Your task to perform on an android device: Clear all items from cart on target.com. Search for "bose quietcomfort 35" on target.com, select the first entry, add it to the cart, then select checkout. Image 0: 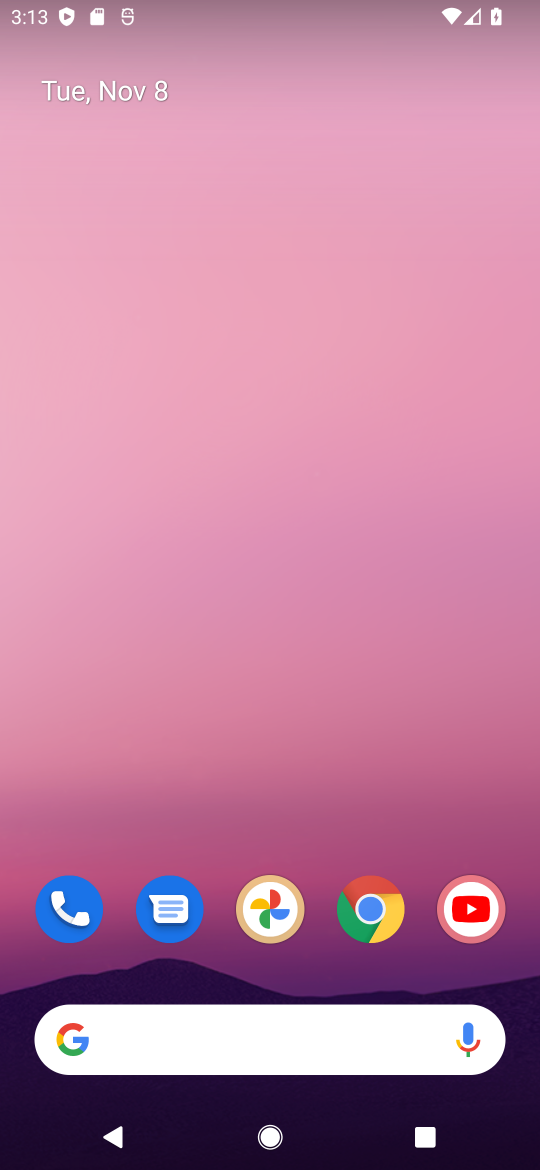
Step 0: click (381, 907)
Your task to perform on an android device: Clear all items from cart on target.com. Search for "bose quietcomfort 35" on target.com, select the first entry, add it to the cart, then select checkout. Image 1: 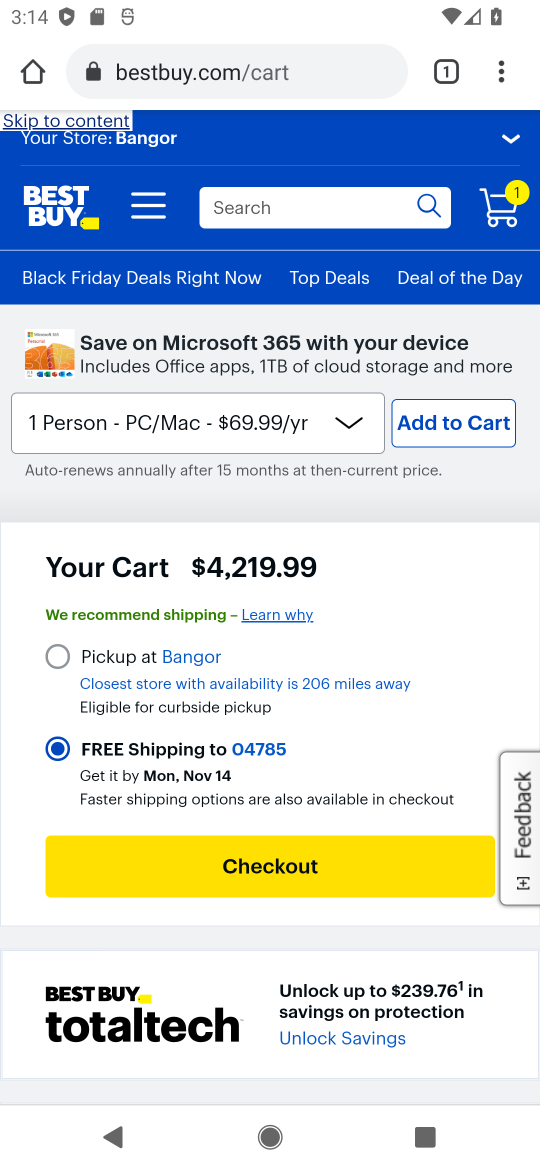
Step 1: click (326, 69)
Your task to perform on an android device: Clear all items from cart on target.com. Search for "bose quietcomfort 35" on target.com, select the first entry, add it to the cart, then select checkout. Image 2: 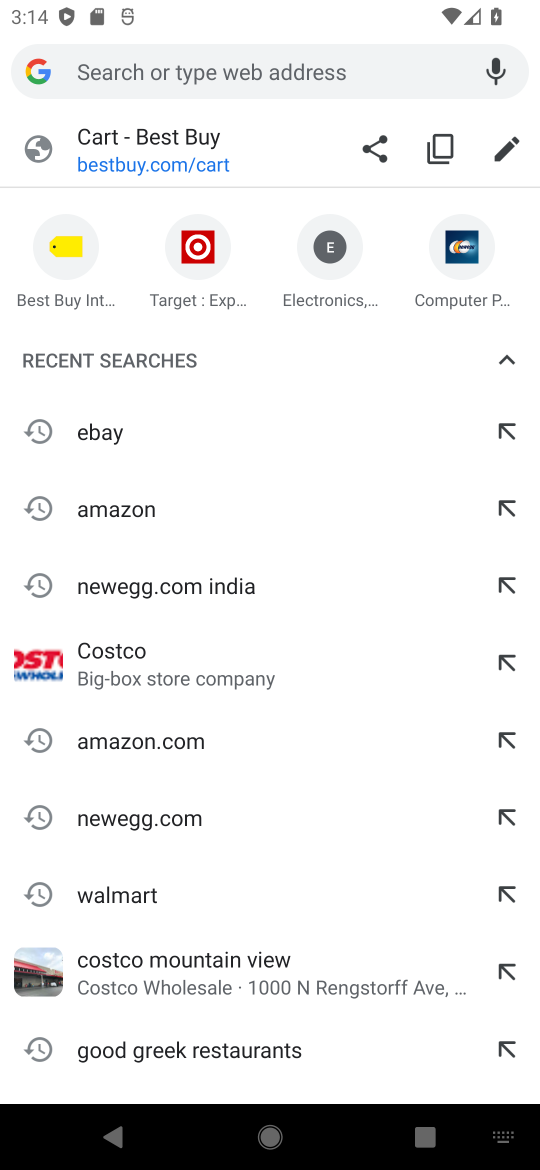
Step 2: click (189, 239)
Your task to perform on an android device: Clear all items from cart on target.com. Search for "bose quietcomfort 35" on target.com, select the first entry, add it to the cart, then select checkout. Image 3: 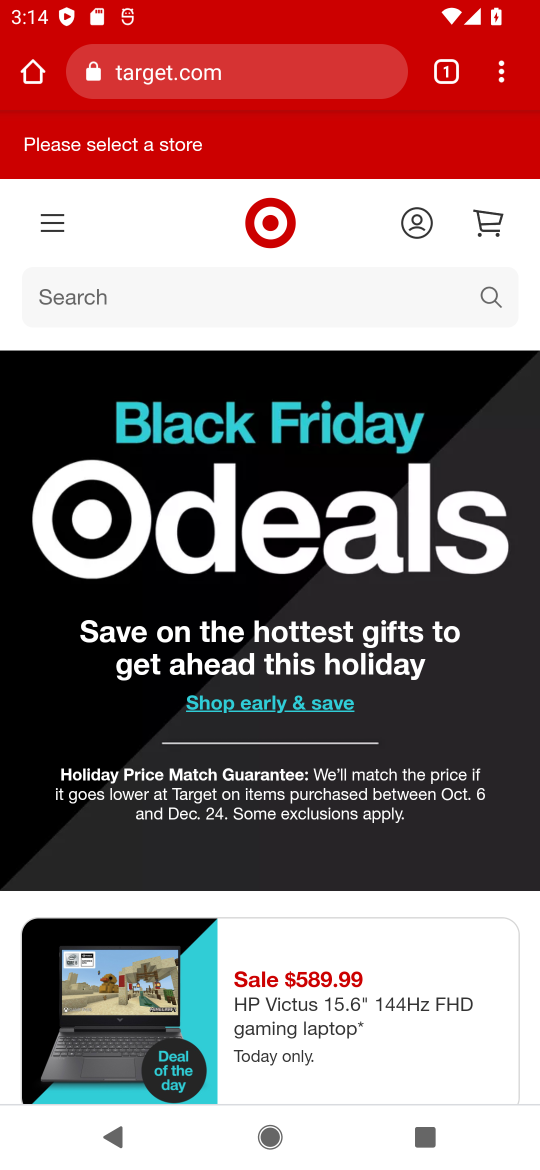
Step 3: click (248, 294)
Your task to perform on an android device: Clear all items from cart on target.com. Search for "bose quietcomfort 35" on target.com, select the first entry, add it to the cart, then select checkout. Image 4: 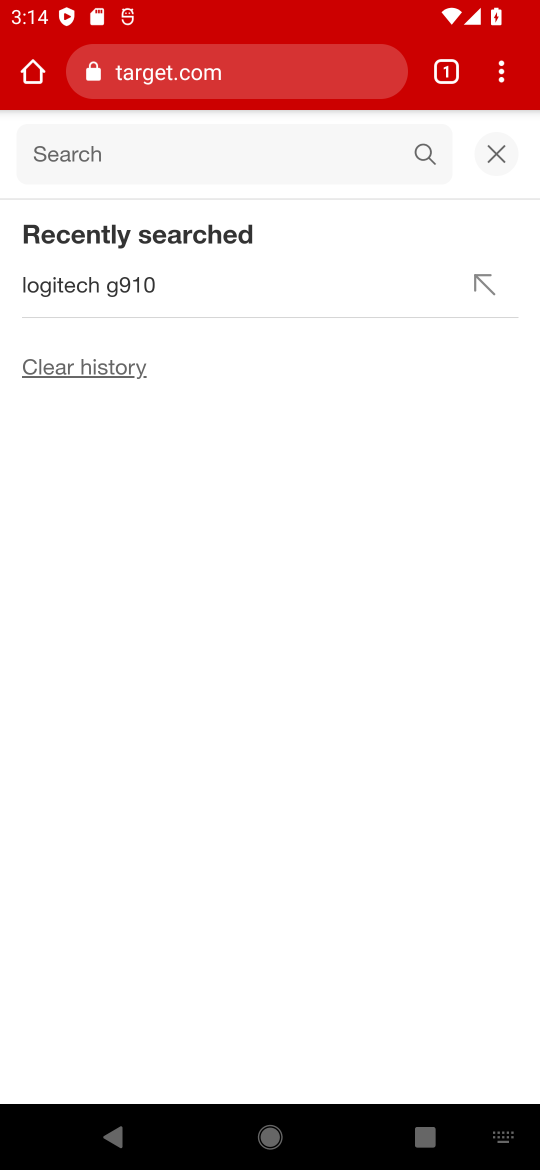
Step 4: type "bose quietcomfort 35"
Your task to perform on an android device: Clear all items from cart on target.com. Search for "bose quietcomfort 35" on target.com, select the first entry, add it to the cart, then select checkout. Image 5: 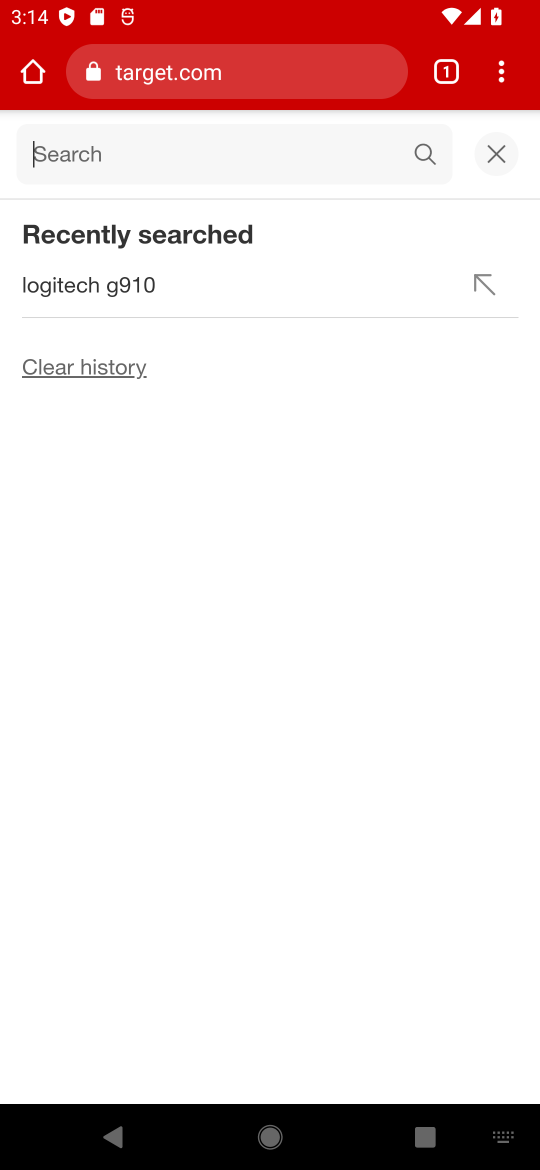
Step 5: press enter
Your task to perform on an android device: Clear all items from cart on target.com. Search for "bose quietcomfort 35" on target.com, select the first entry, add it to the cart, then select checkout. Image 6: 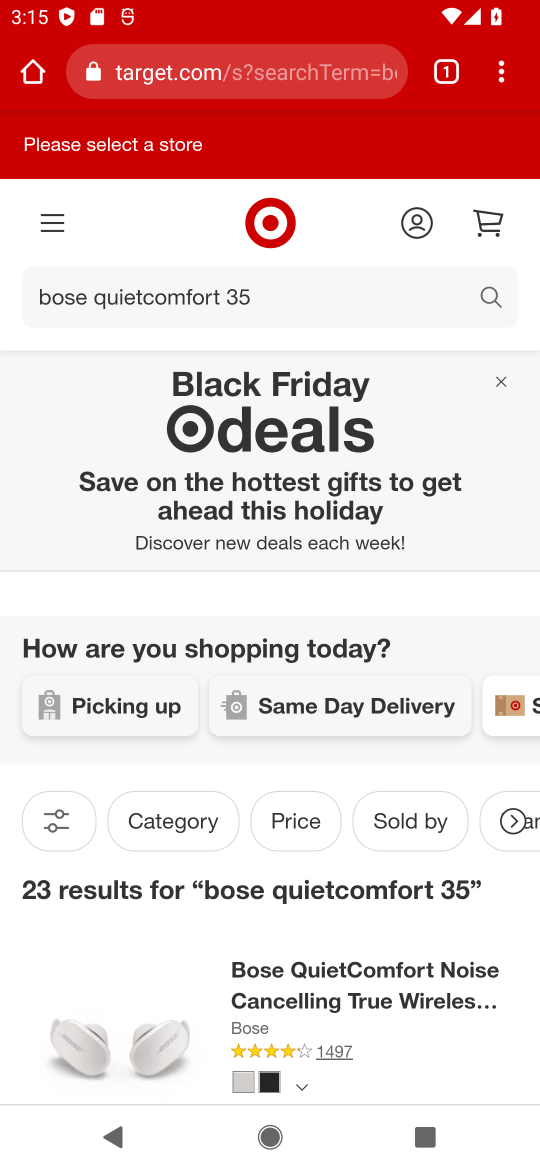
Step 6: drag from (220, 931) to (237, 600)
Your task to perform on an android device: Clear all items from cart on target.com. Search for "bose quietcomfort 35" on target.com, select the first entry, add it to the cart, then select checkout. Image 7: 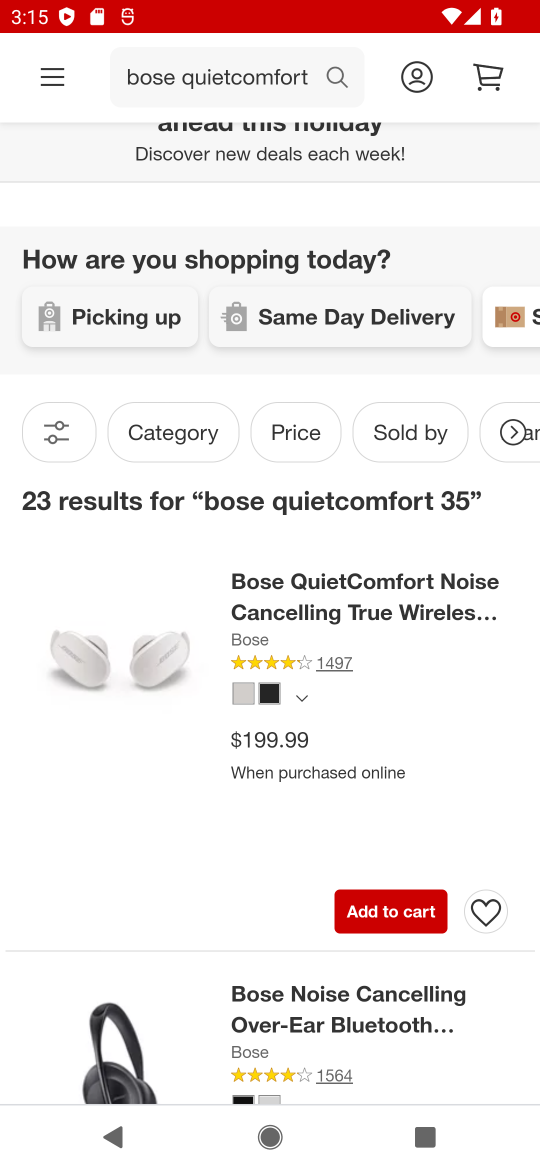
Step 7: click (353, 613)
Your task to perform on an android device: Clear all items from cart on target.com. Search for "bose quietcomfort 35" on target.com, select the first entry, add it to the cart, then select checkout. Image 8: 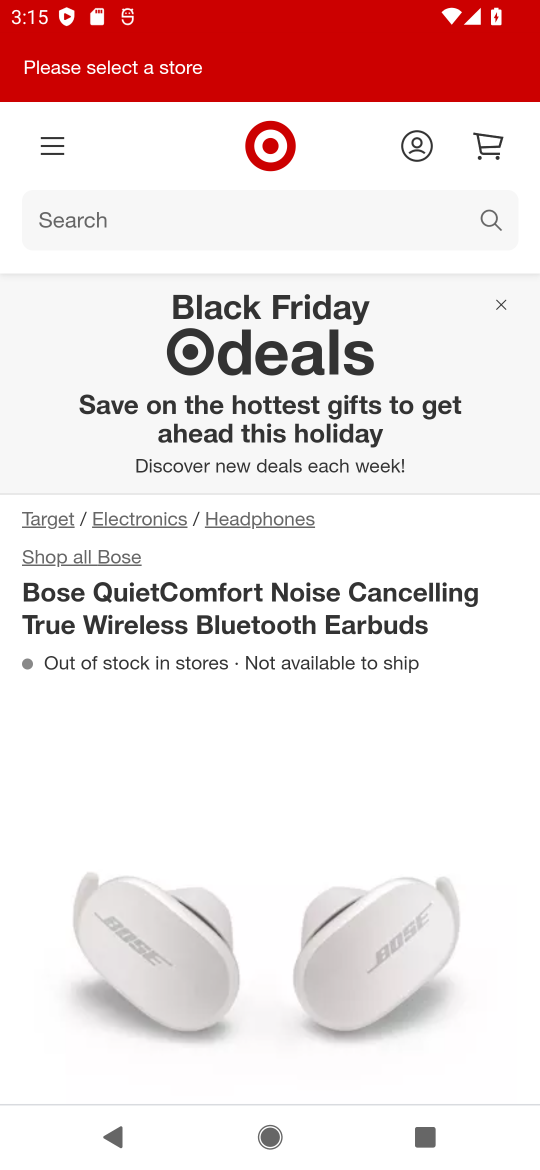
Step 8: task complete